Your task to perform on an android device: turn on location history Image 0: 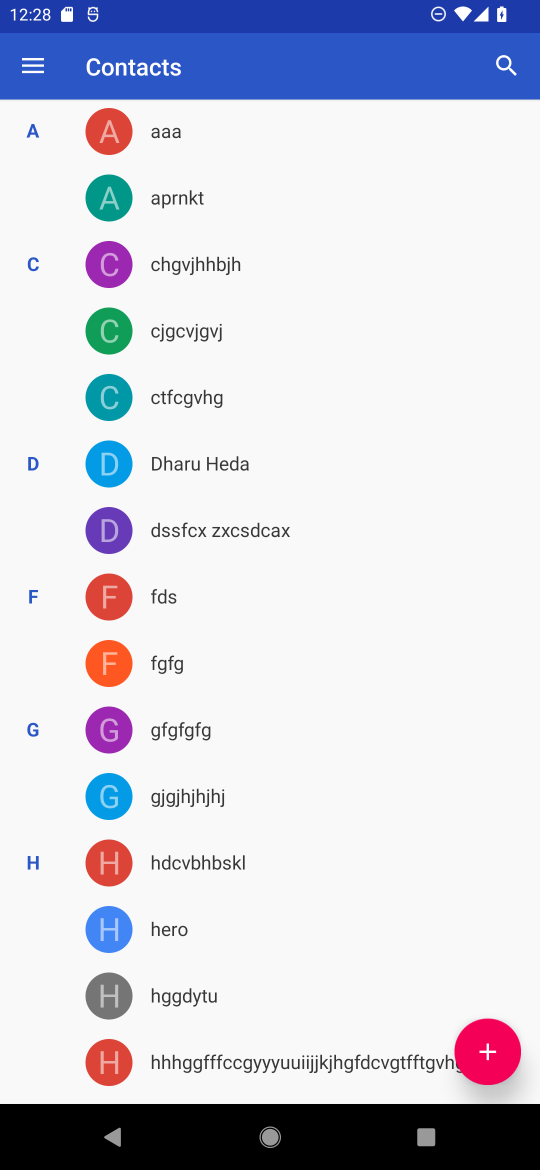
Step 0: press home button
Your task to perform on an android device: turn on location history Image 1: 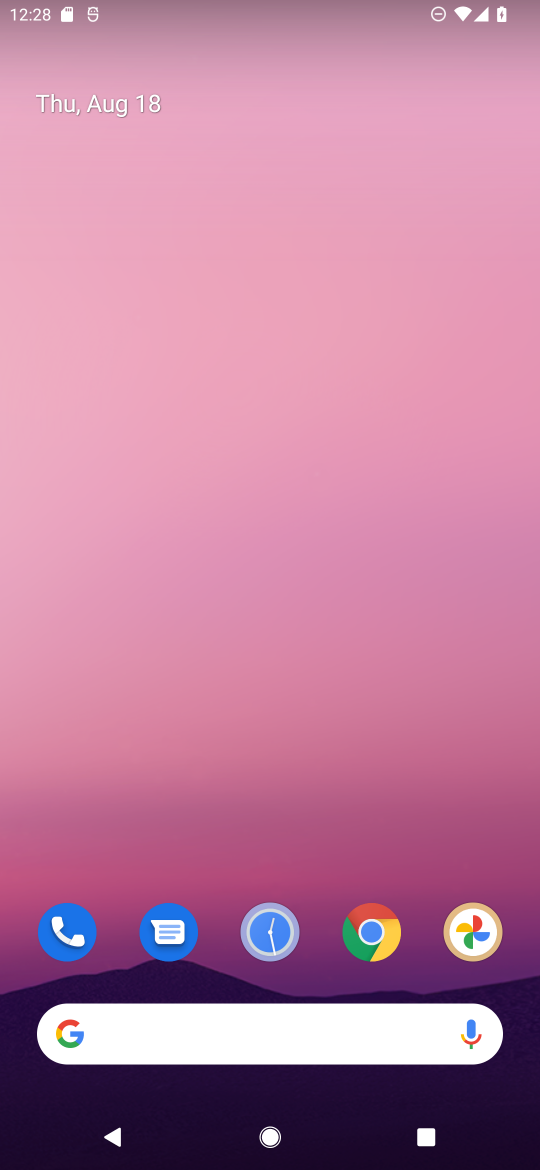
Step 1: drag from (301, 866) to (293, 327)
Your task to perform on an android device: turn on location history Image 2: 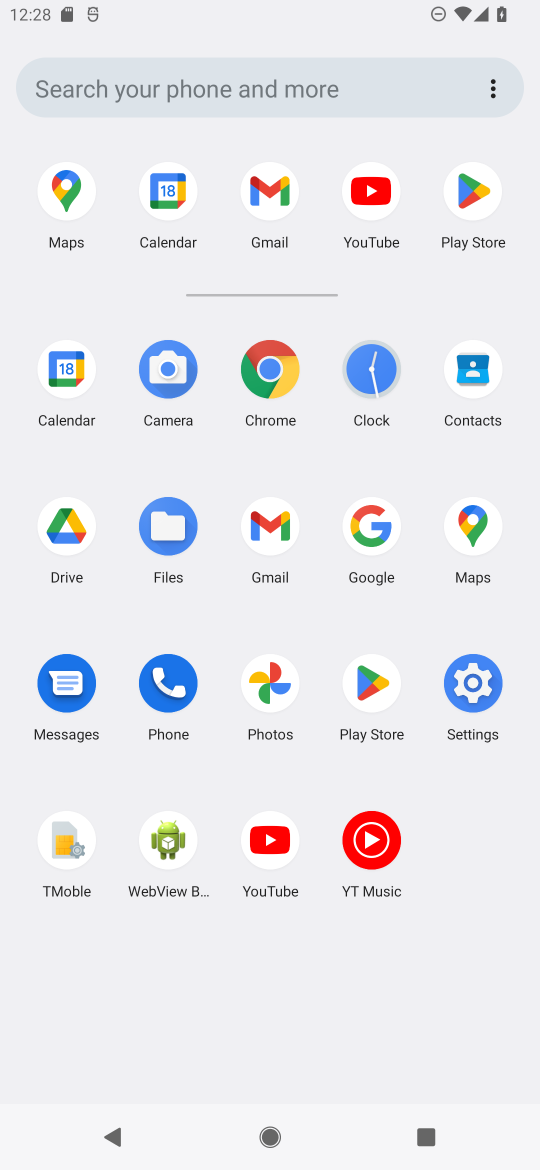
Step 2: click (473, 686)
Your task to perform on an android device: turn on location history Image 3: 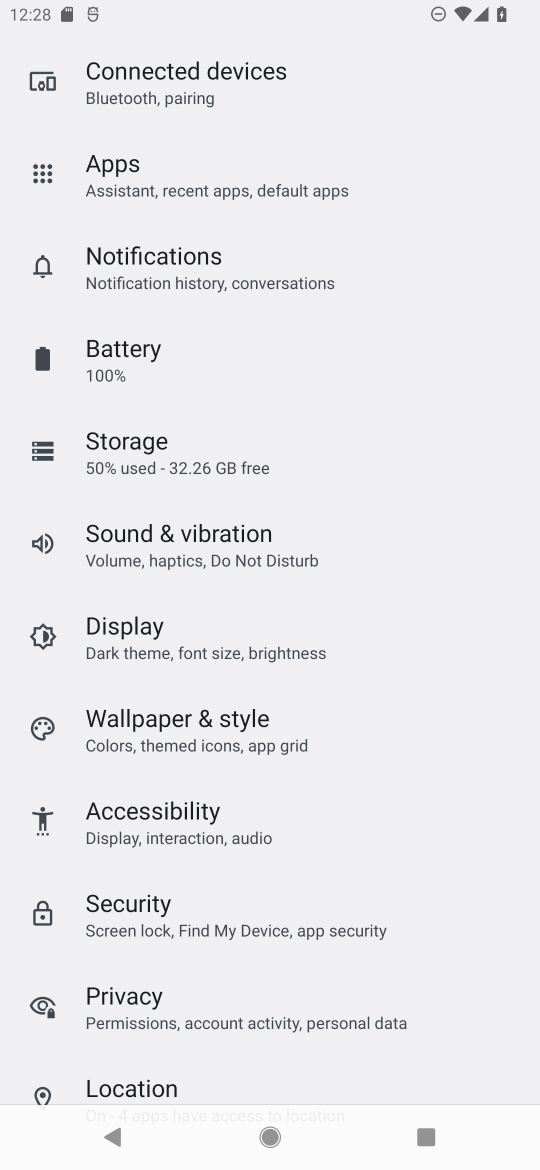
Step 3: click (143, 1073)
Your task to perform on an android device: turn on location history Image 4: 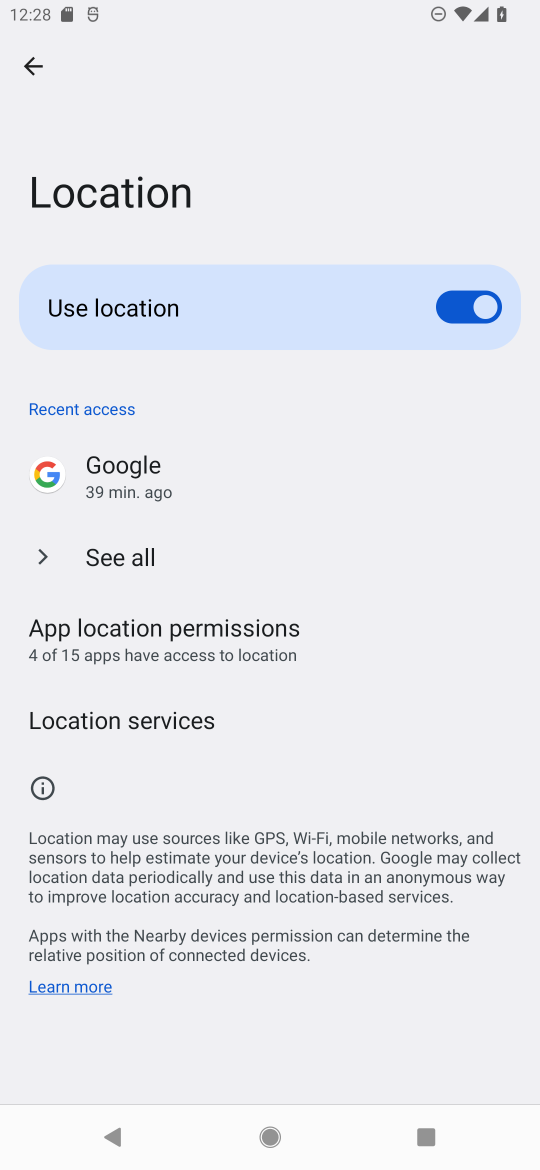
Step 4: click (103, 721)
Your task to perform on an android device: turn on location history Image 5: 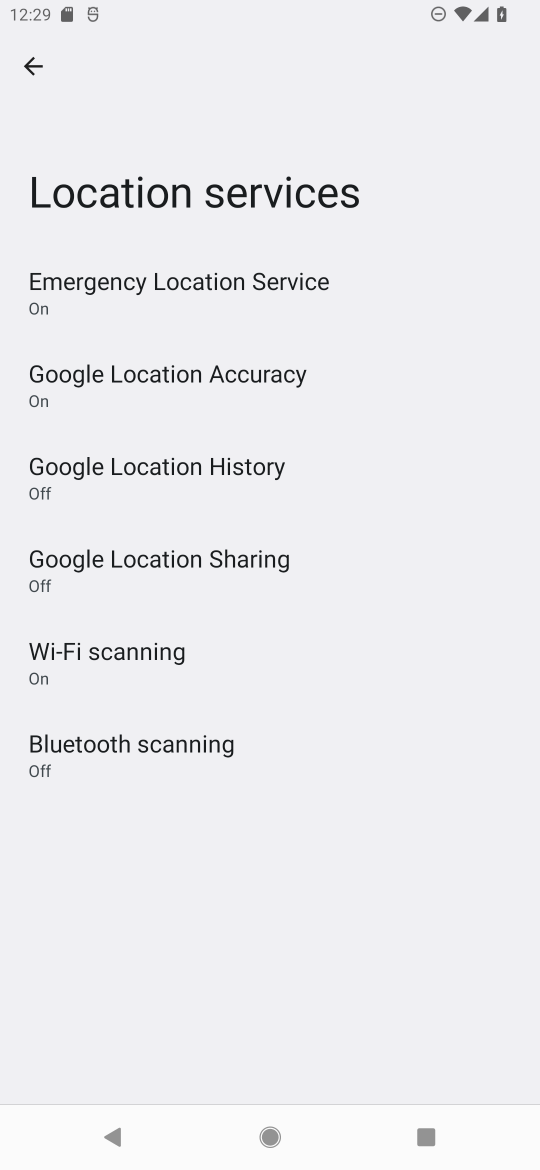
Step 5: click (152, 458)
Your task to perform on an android device: turn on location history Image 6: 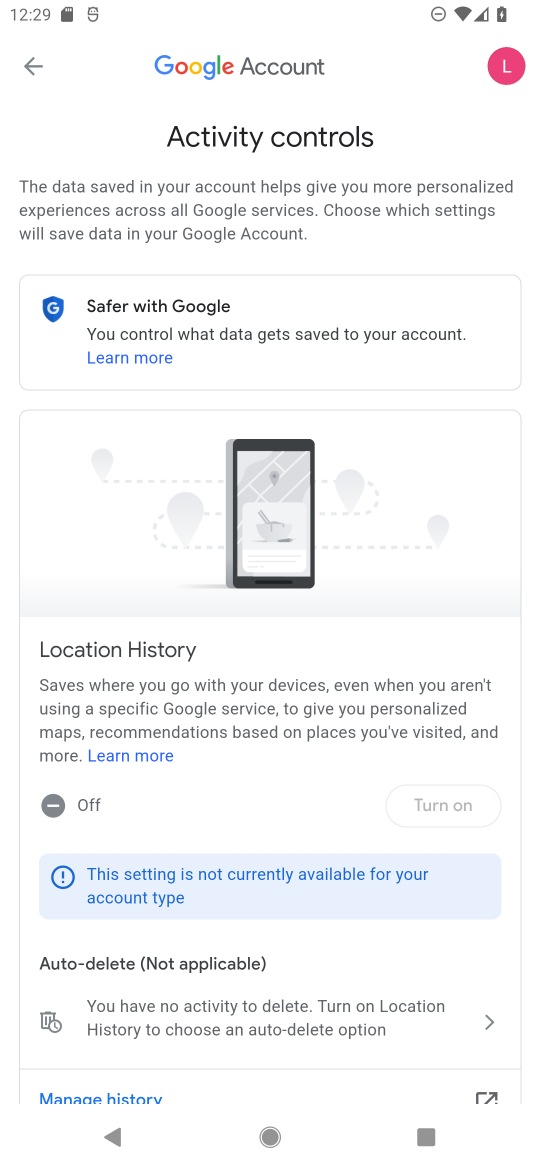
Step 6: task complete